Your task to perform on an android device: open chrome and create a bookmark for the current page Image 0: 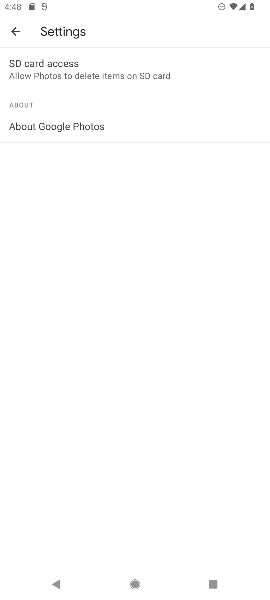
Step 0: click (11, 31)
Your task to perform on an android device: open chrome and create a bookmark for the current page Image 1: 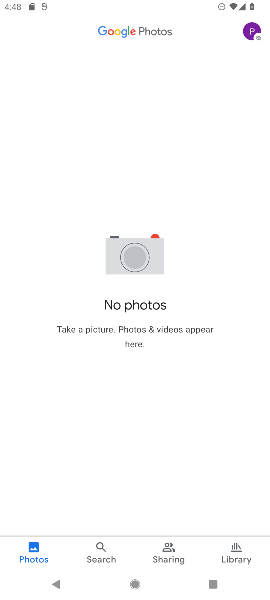
Step 1: press back button
Your task to perform on an android device: open chrome and create a bookmark for the current page Image 2: 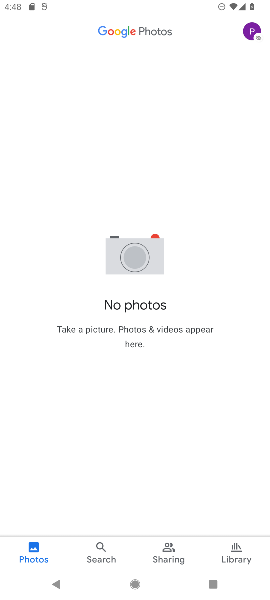
Step 2: press back button
Your task to perform on an android device: open chrome and create a bookmark for the current page Image 3: 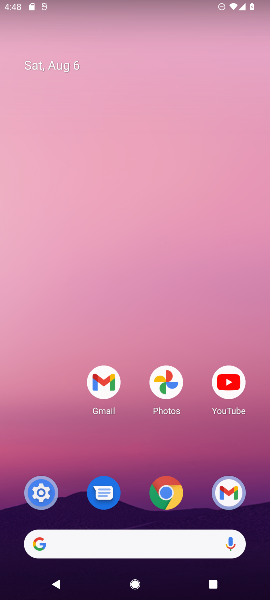
Step 3: press back button
Your task to perform on an android device: open chrome and create a bookmark for the current page Image 4: 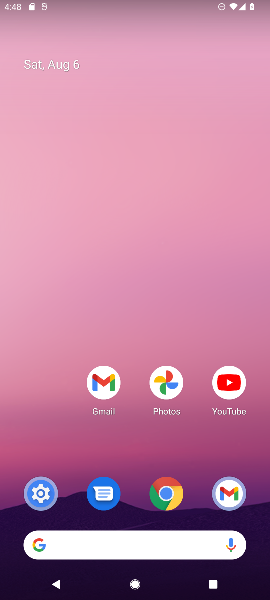
Step 4: drag from (139, 522) to (138, 147)
Your task to perform on an android device: open chrome and create a bookmark for the current page Image 5: 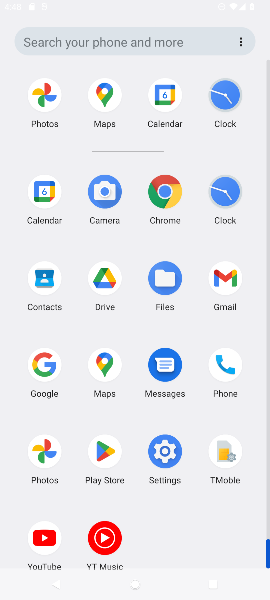
Step 5: drag from (157, 469) to (146, 206)
Your task to perform on an android device: open chrome and create a bookmark for the current page Image 6: 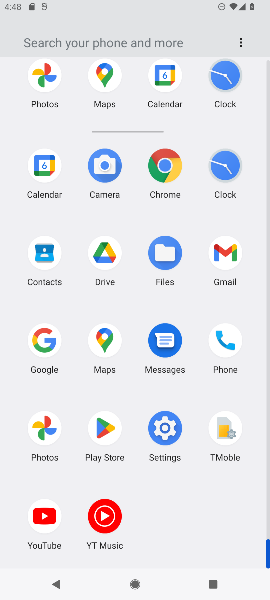
Step 6: drag from (174, 366) to (160, 149)
Your task to perform on an android device: open chrome and create a bookmark for the current page Image 7: 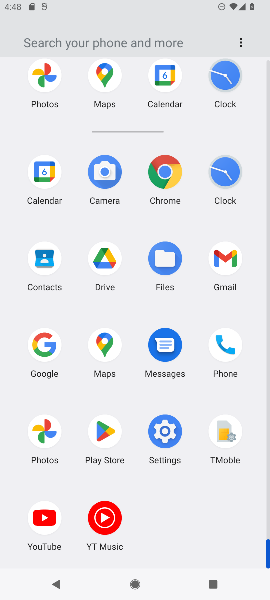
Step 7: click (160, 172)
Your task to perform on an android device: open chrome and create a bookmark for the current page Image 8: 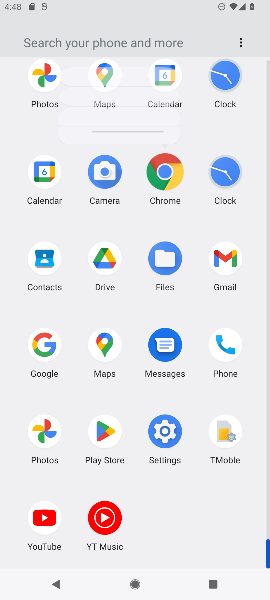
Step 8: click (160, 172)
Your task to perform on an android device: open chrome and create a bookmark for the current page Image 9: 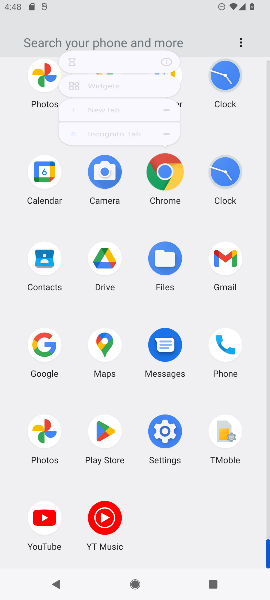
Step 9: click (160, 172)
Your task to perform on an android device: open chrome and create a bookmark for the current page Image 10: 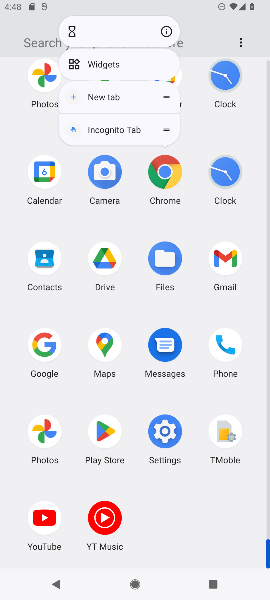
Step 10: click (160, 172)
Your task to perform on an android device: open chrome and create a bookmark for the current page Image 11: 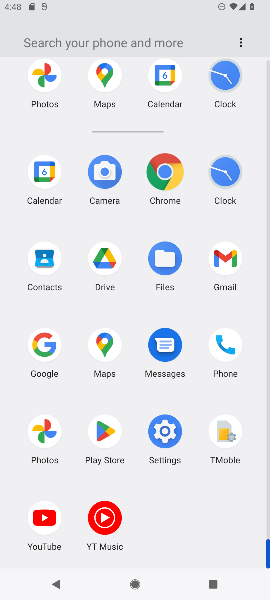
Step 11: click (160, 172)
Your task to perform on an android device: open chrome and create a bookmark for the current page Image 12: 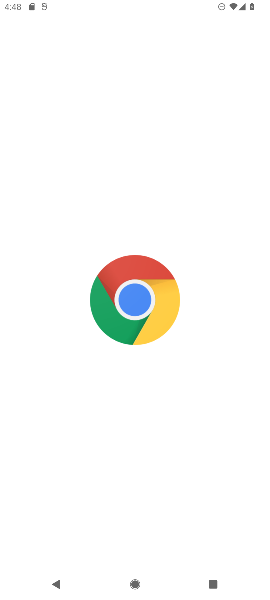
Step 12: click (160, 172)
Your task to perform on an android device: open chrome and create a bookmark for the current page Image 13: 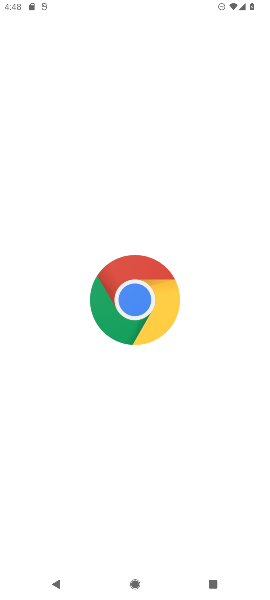
Step 13: click (160, 172)
Your task to perform on an android device: open chrome and create a bookmark for the current page Image 14: 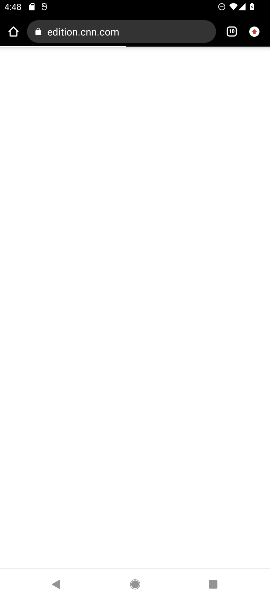
Step 14: drag from (253, 33) to (160, 32)
Your task to perform on an android device: open chrome and create a bookmark for the current page Image 15: 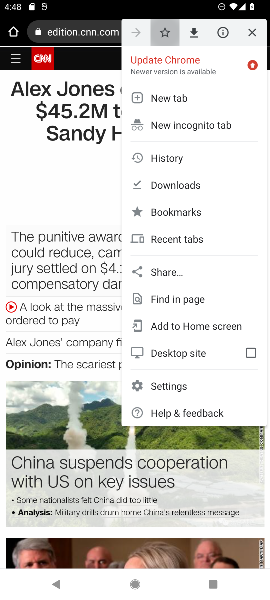
Step 15: click (161, 32)
Your task to perform on an android device: open chrome and create a bookmark for the current page Image 16: 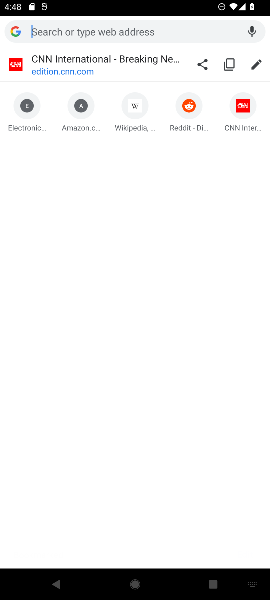
Step 16: task complete